Your task to perform on an android device: Turn on the flashlight Image 0: 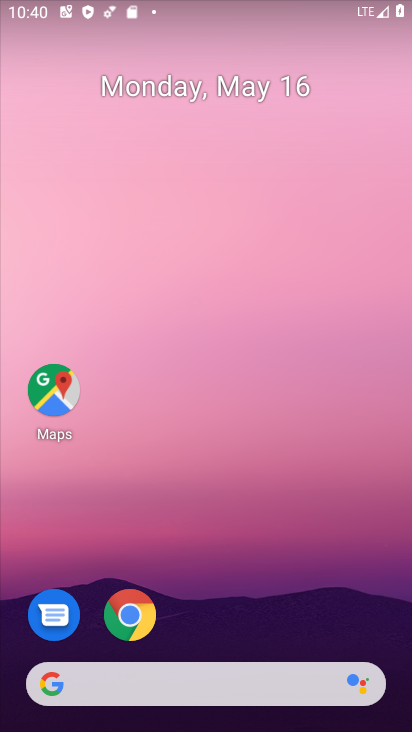
Step 0: drag from (261, 672) to (362, 57)
Your task to perform on an android device: Turn on the flashlight Image 1: 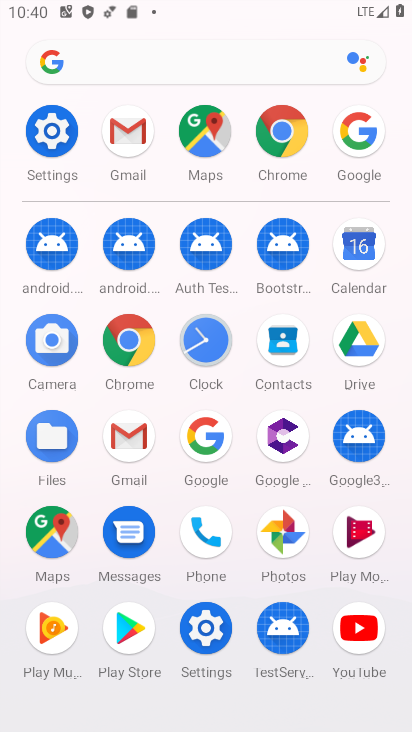
Step 1: task complete